Your task to perform on an android device: Open notification settings Image 0: 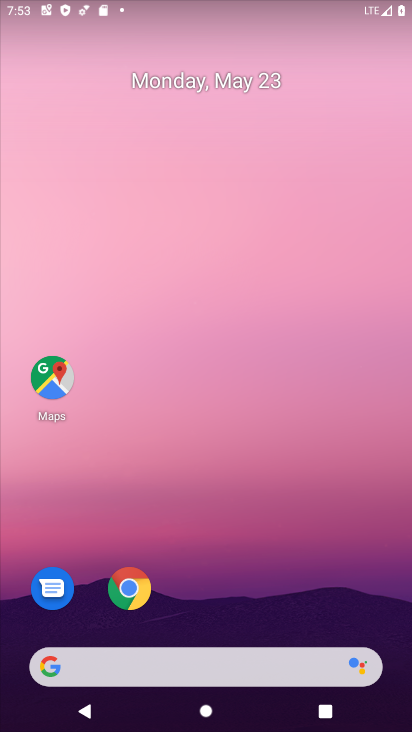
Step 0: drag from (390, 623) to (338, 211)
Your task to perform on an android device: Open notification settings Image 1: 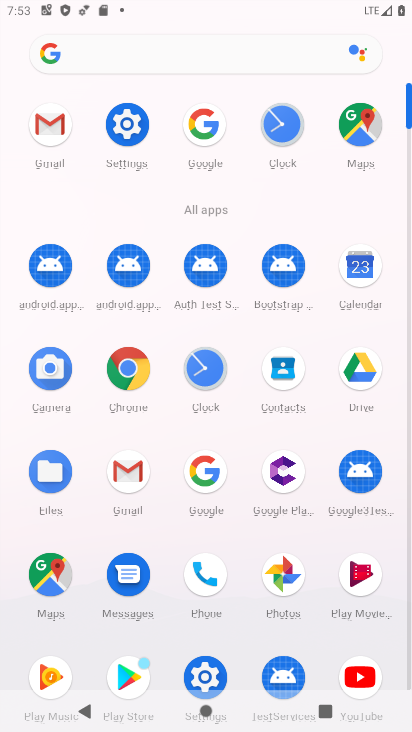
Step 1: click (207, 664)
Your task to perform on an android device: Open notification settings Image 2: 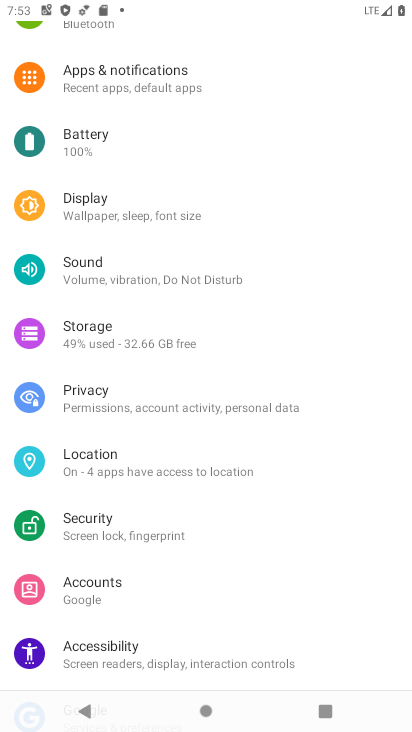
Step 2: click (101, 78)
Your task to perform on an android device: Open notification settings Image 3: 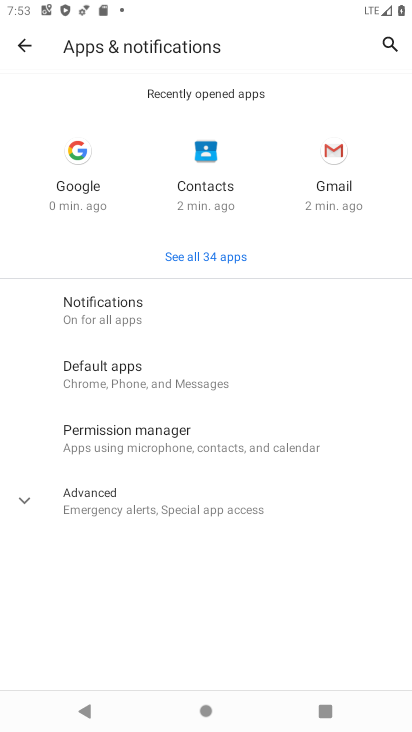
Step 3: click (107, 309)
Your task to perform on an android device: Open notification settings Image 4: 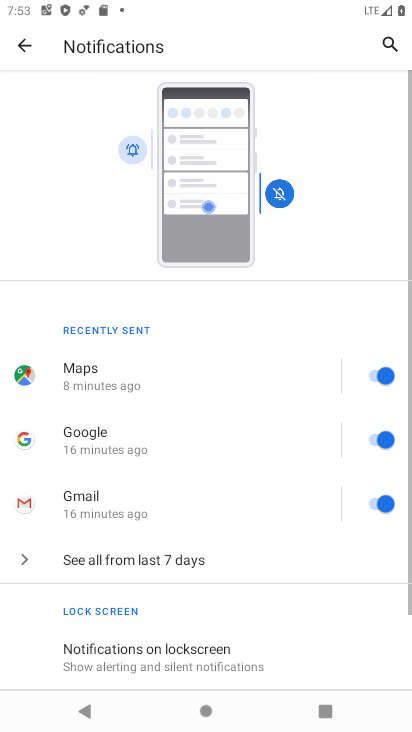
Step 4: drag from (269, 659) to (264, 171)
Your task to perform on an android device: Open notification settings Image 5: 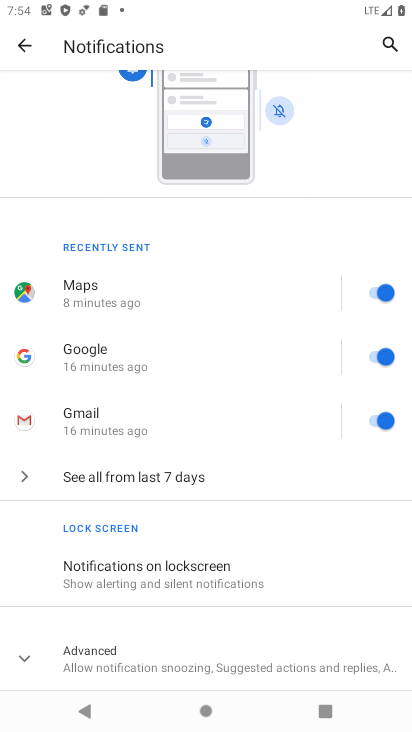
Step 5: click (11, 662)
Your task to perform on an android device: Open notification settings Image 6: 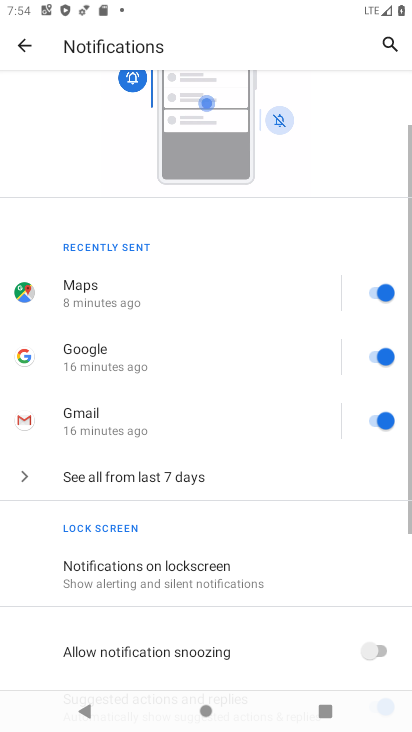
Step 6: task complete